Your task to perform on an android device: Find coffee shops on Maps Image 0: 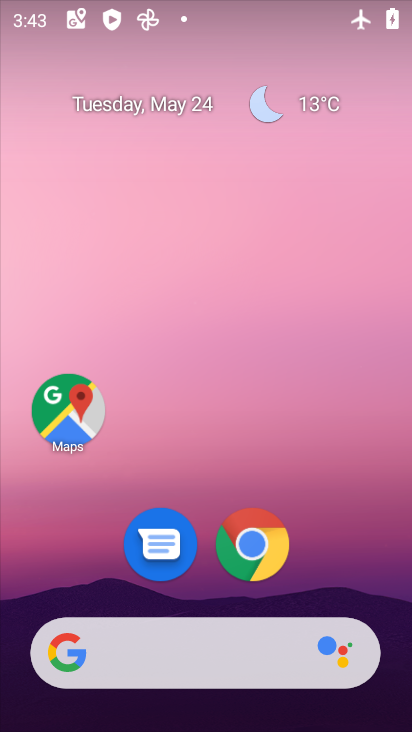
Step 0: drag from (339, 524) to (303, 77)
Your task to perform on an android device: Find coffee shops on Maps Image 1: 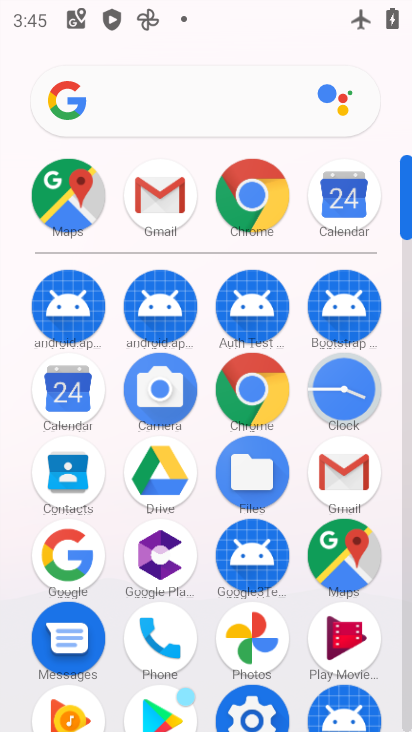
Step 1: click (357, 557)
Your task to perform on an android device: Find coffee shops on Maps Image 2: 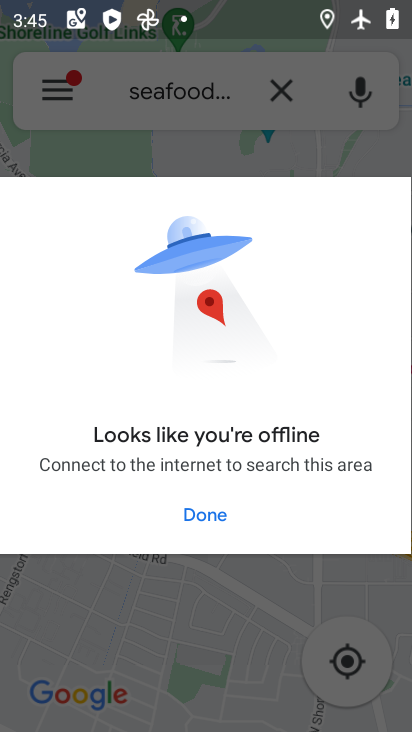
Step 2: task complete